Your task to perform on an android device: Show me recent news Image 0: 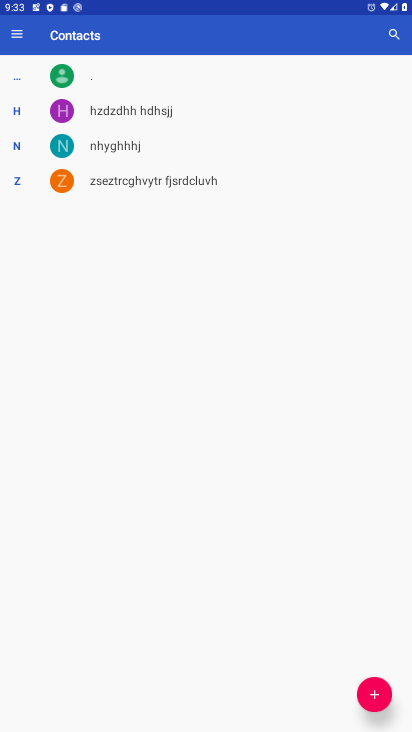
Step 0: press home button
Your task to perform on an android device: Show me recent news Image 1: 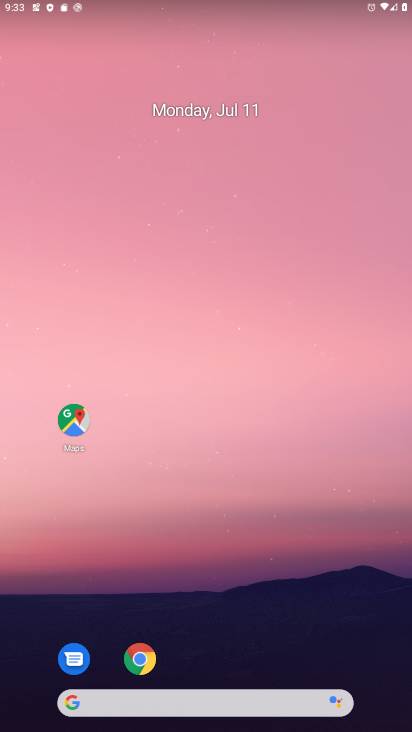
Step 1: drag from (12, 254) to (343, 412)
Your task to perform on an android device: Show me recent news Image 2: 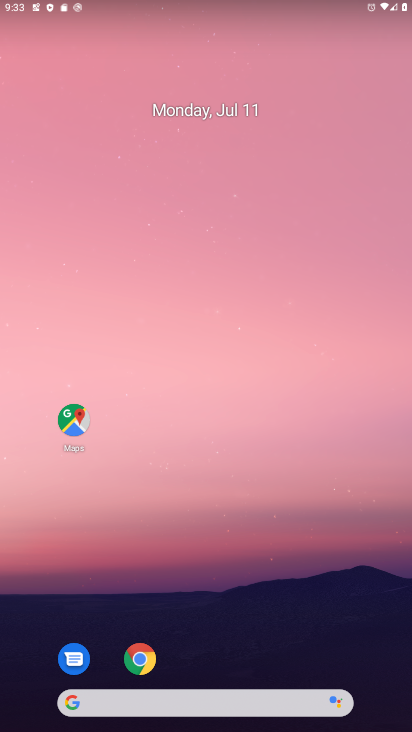
Step 2: drag from (11, 277) to (397, 306)
Your task to perform on an android device: Show me recent news Image 3: 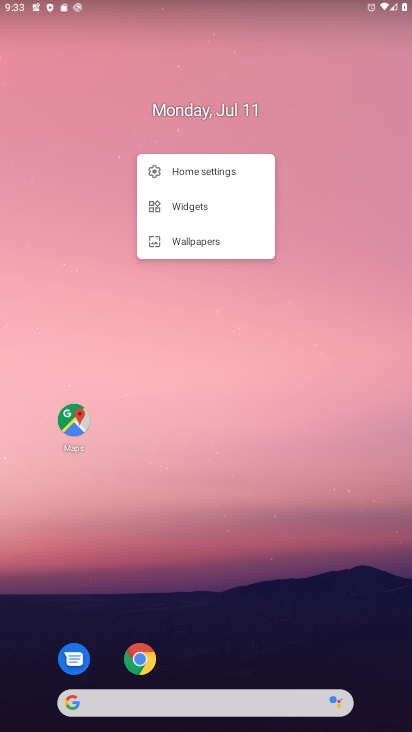
Step 3: click (25, 290)
Your task to perform on an android device: Show me recent news Image 4: 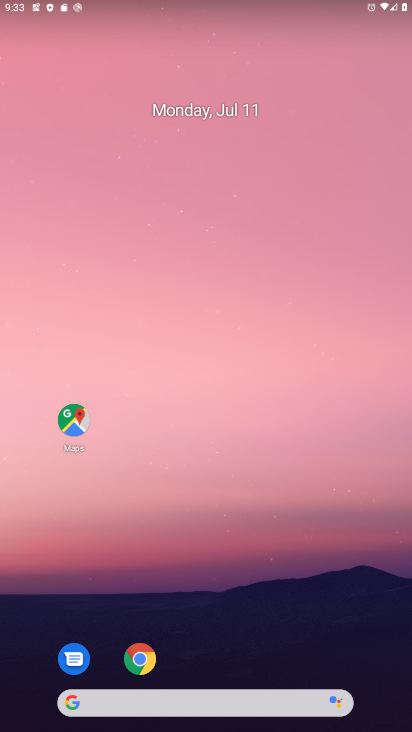
Step 4: drag from (12, 287) to (393, 366)
Your task to perform on an android device: Show me recent news Image 5: 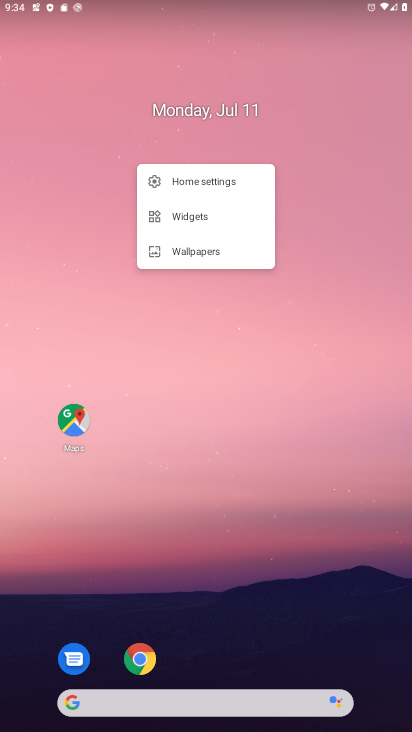
Step 5: click (17, 349)
Your task to perform on an android device: Show me recent news Image 6: 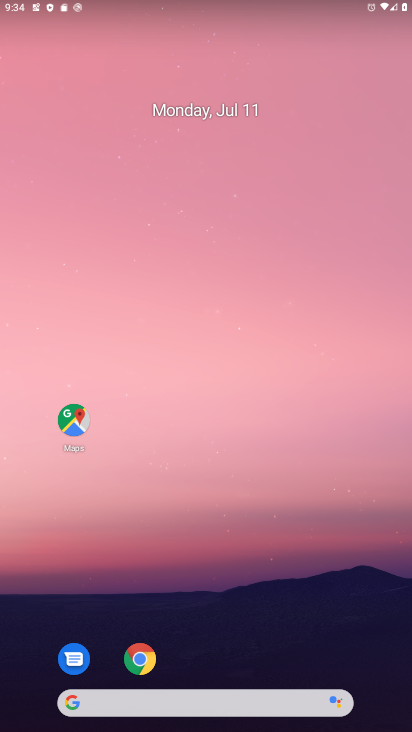
Step 6: task complete